Your task to perform on an android device: open app "Pinterest" Image 0: 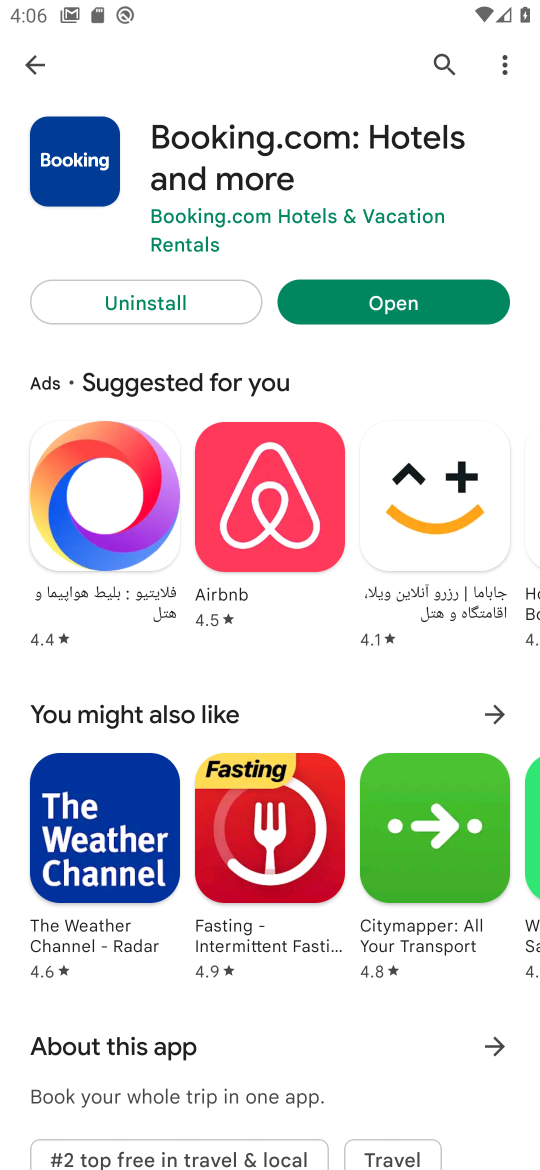
Step 0: press home button
Your task to perform on an android device: open app "Pinterest" Image 1: 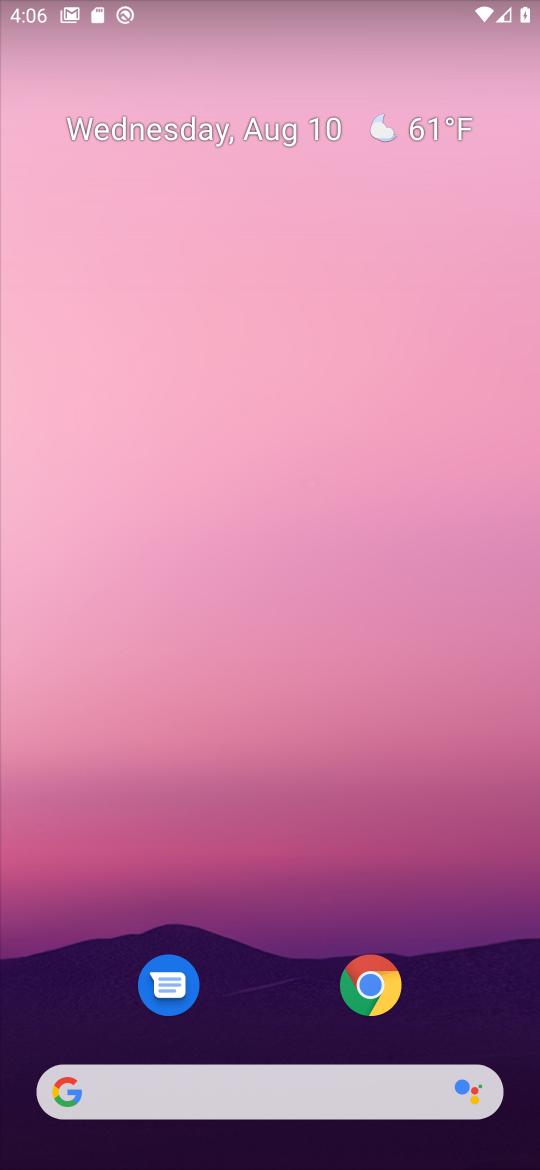
Step 1: drag from (279, 873) to (284, 71)
Your task to perform on an android device: open app "Pinterest" Image 2: 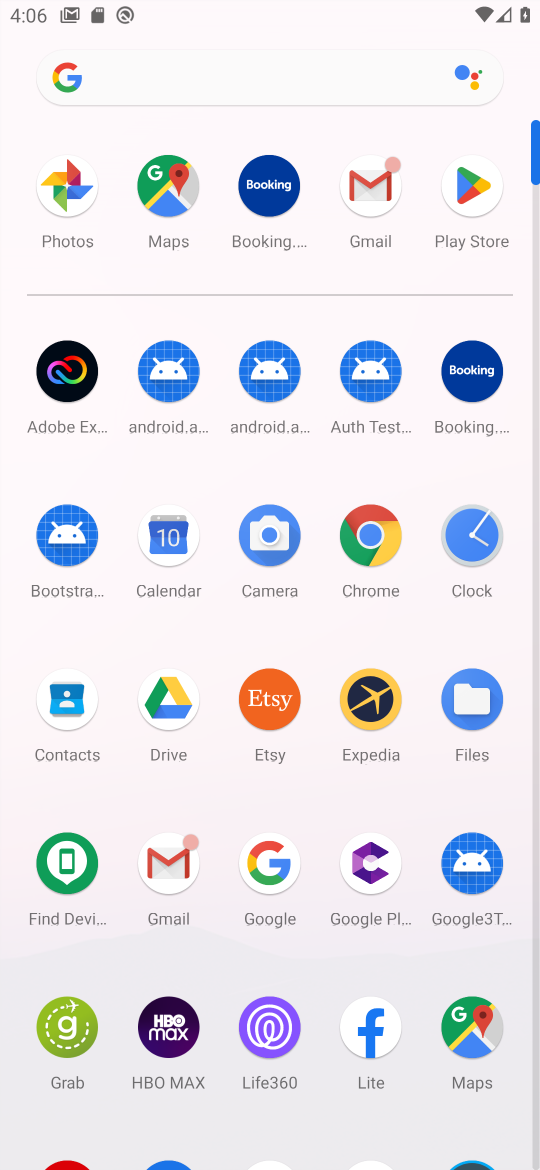
Step 2: click (463, 182)
Your task to perform on an android device: open app "Pinterest" Image 3: 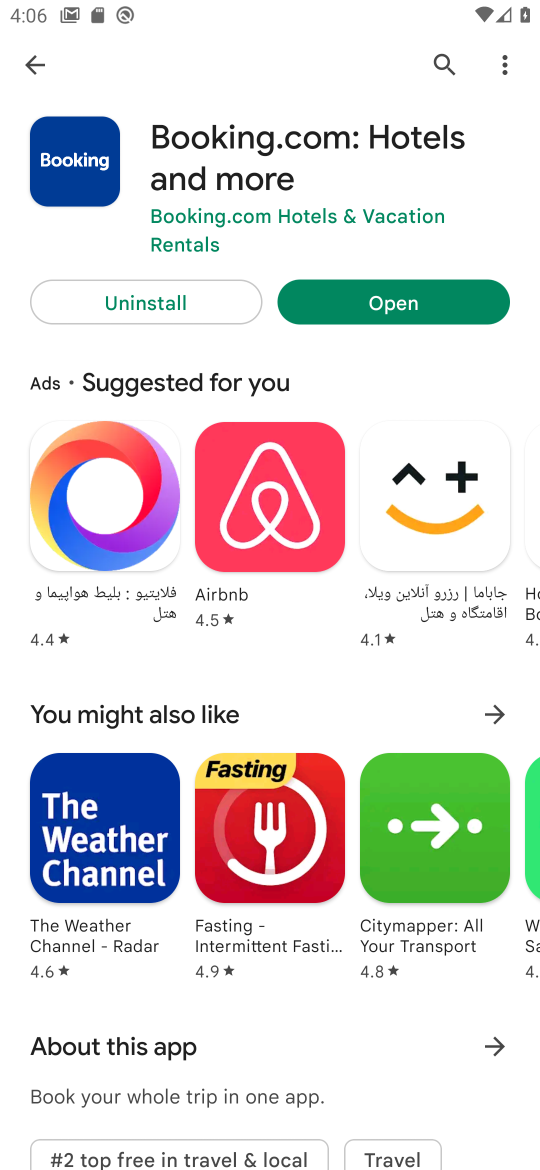
Step 3: click (29, 59)
Your task to perform on an android device: open app "Pinterest" Image 4: 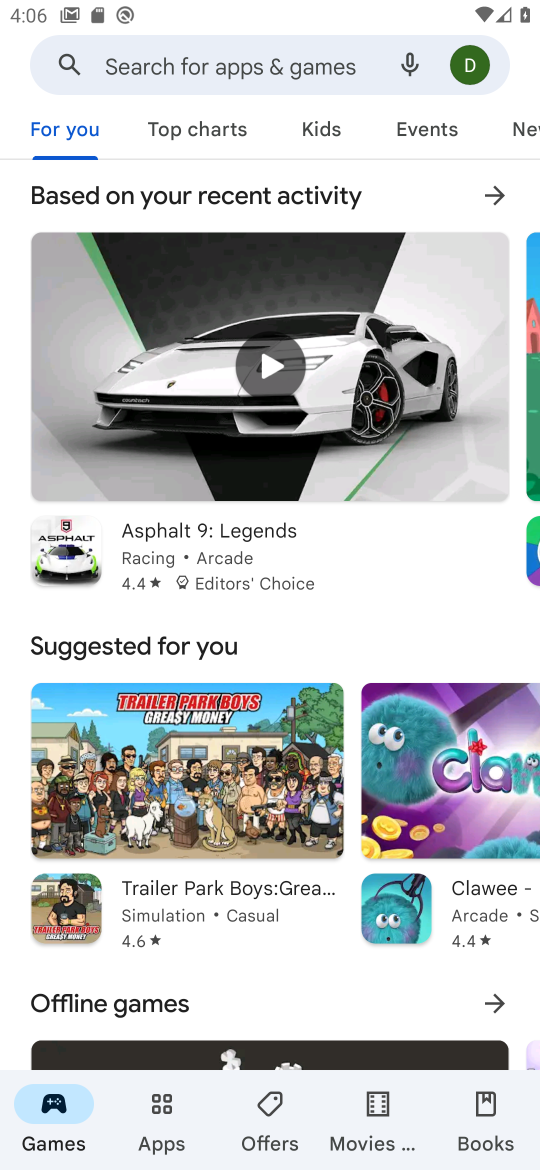
Step 4: click (145, 75)
Your task to perform on an android device: open app "Pinterest" Image 5: 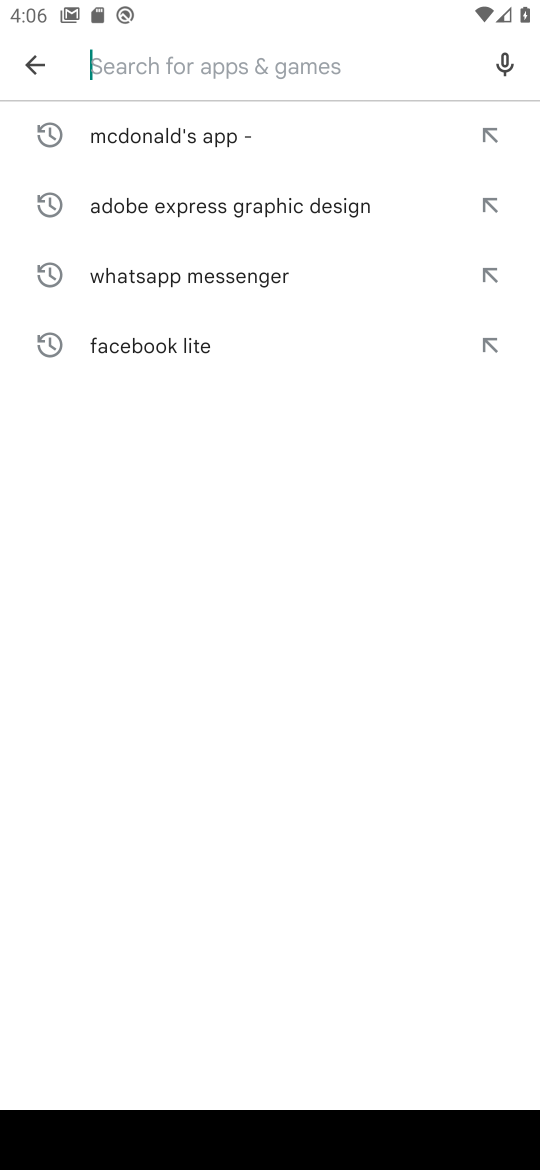
Step 5: type "Pinterest"
Your task to perform on an android device: open app "Pinterest" Image 6: 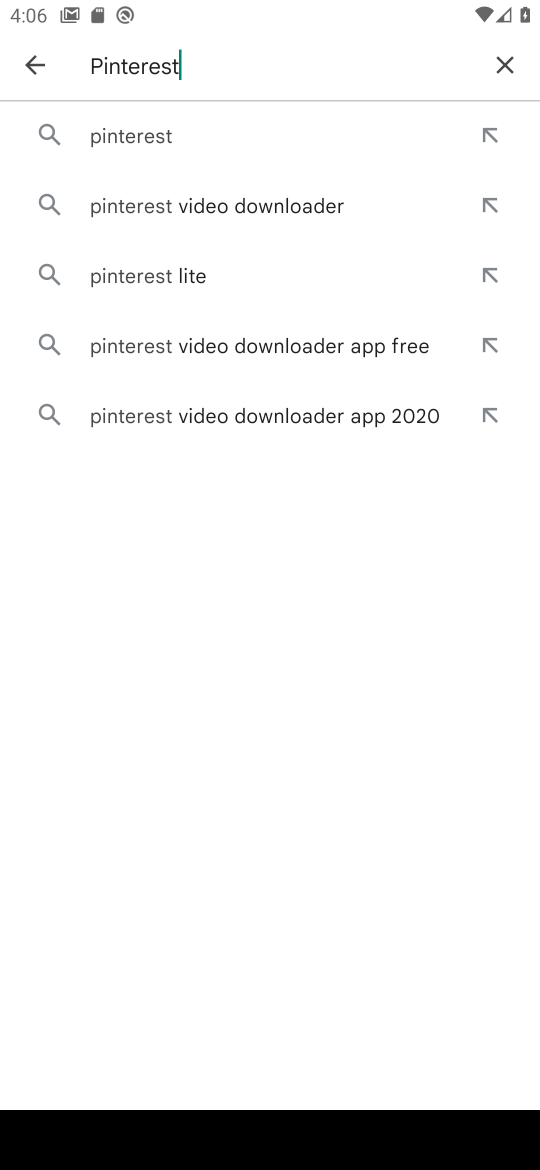
Step 6: click (130, 129)
Your task to perform on an android device: open app "Pinterest" Image 7: 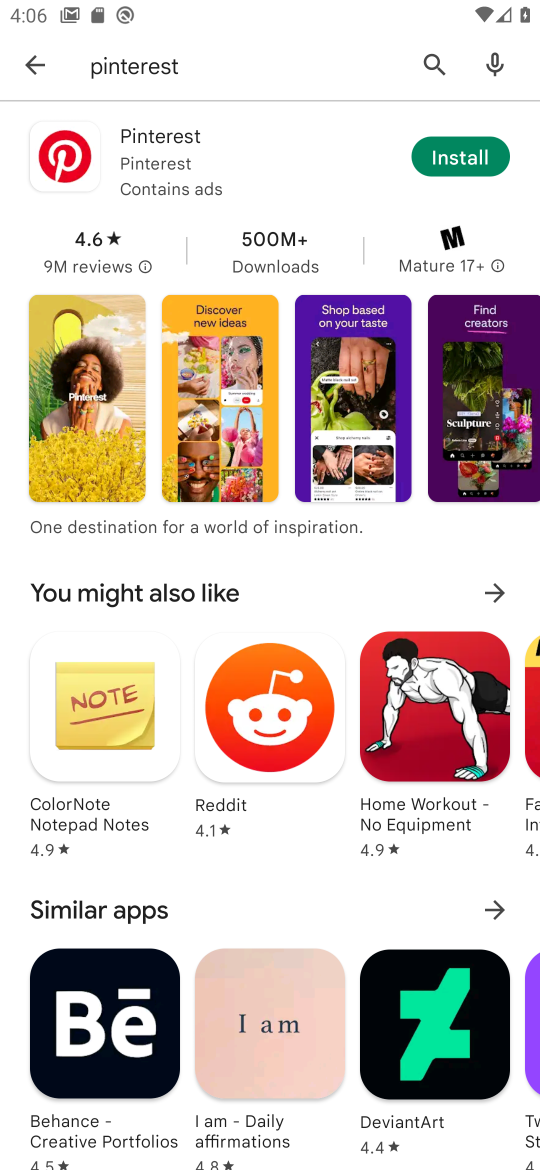
Step 7: click (449, 152)
Your task to perform on an android device: open app "Pinterest" Image 8: 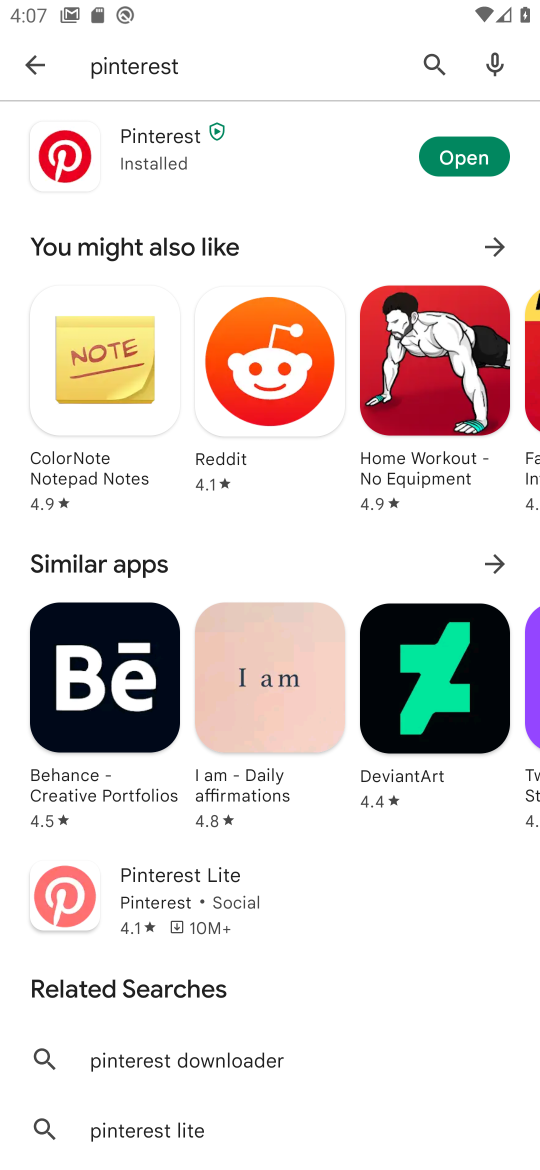
Step 8: click (442, 157)
Your task to perform on an android device: open app "Pinterest" Image 9: 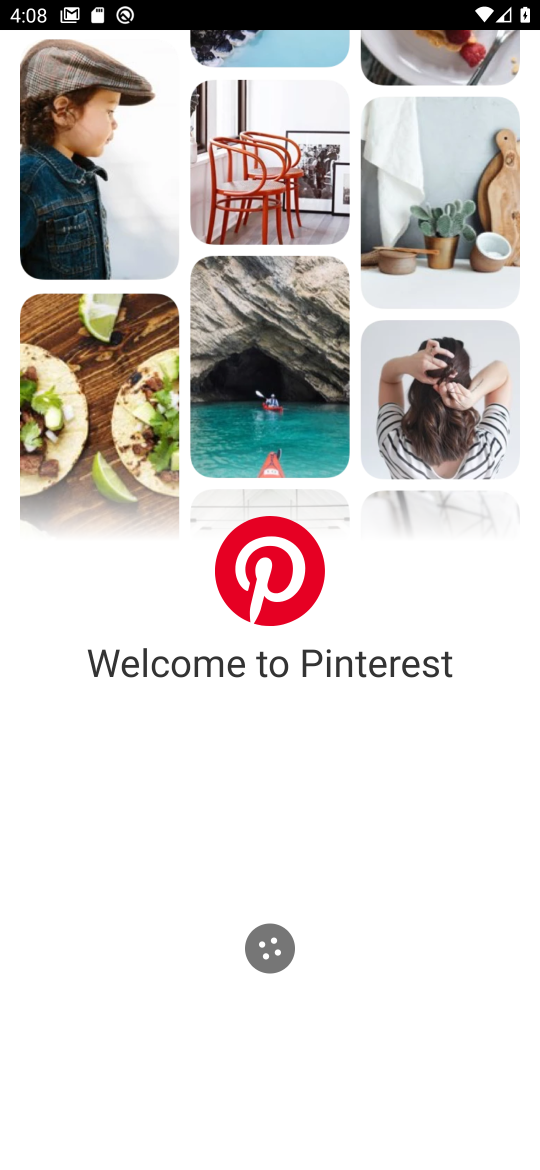
Step 9: task complete